Your task to perform on an android device: turn off location Image 0: 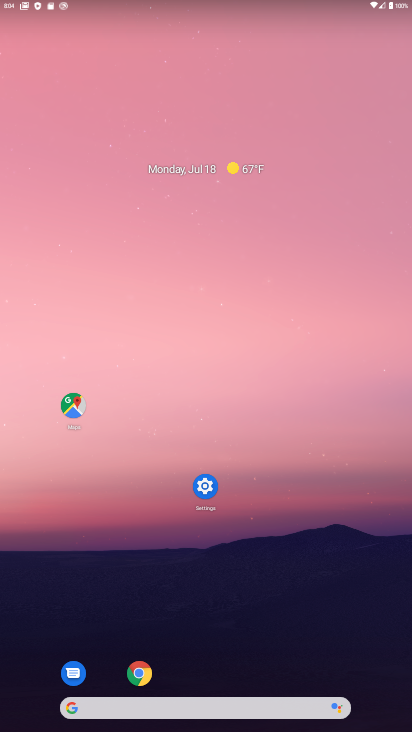
Step 0: drag from (284, 696) to (260, 333)
Your task to perform on an android device: turn off location Image 1: 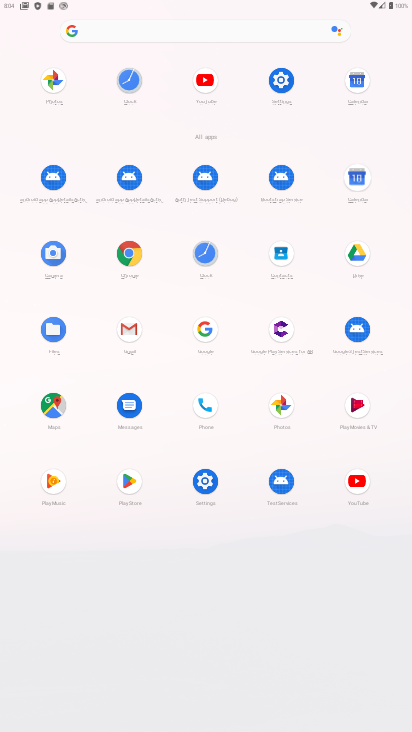
Step 1: click (209, 480)
Your task to perform on an android device: turn off location Image 2: 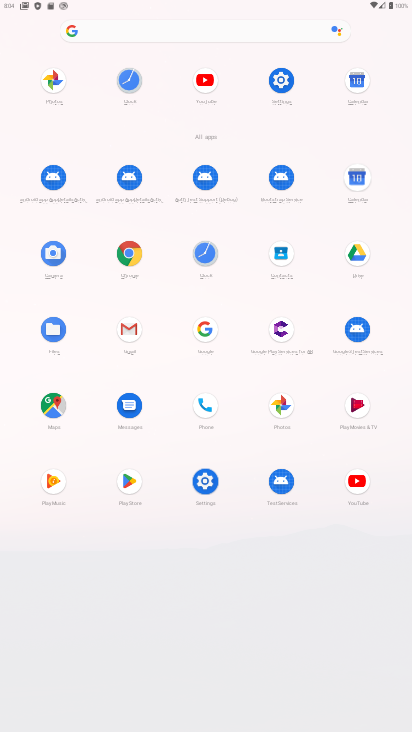
Step 2: click (212, 480)
Your task to perform on an android device: turn off location Image 3: 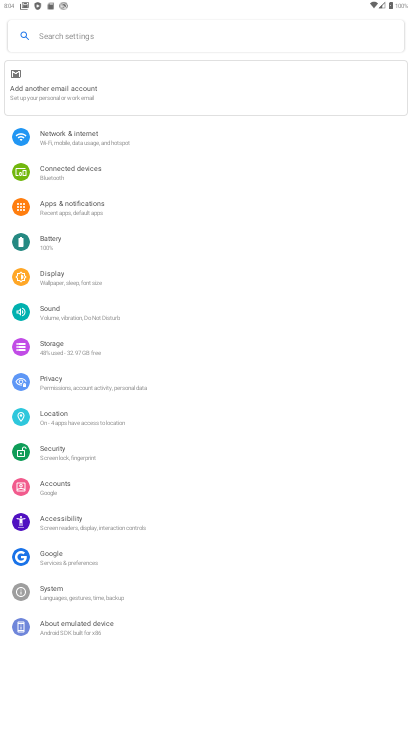
Step 3: click (66, 423)
Your task to perform on an android device: turn off location Image 4: 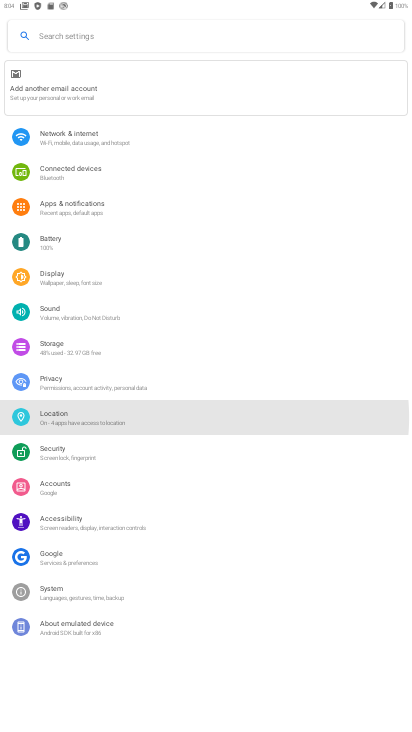
Step 4: click (66, 423)
Your task to perform on an android device: turn off location Image 5: 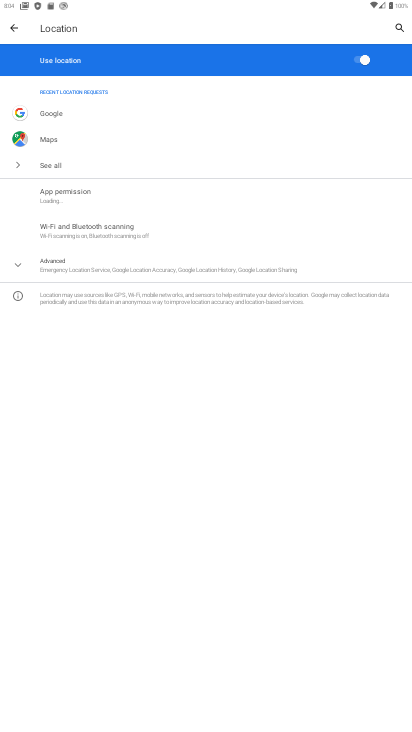
Step 5: click (51, 262)
Your task to perform on an android device: turn off location Image 6: 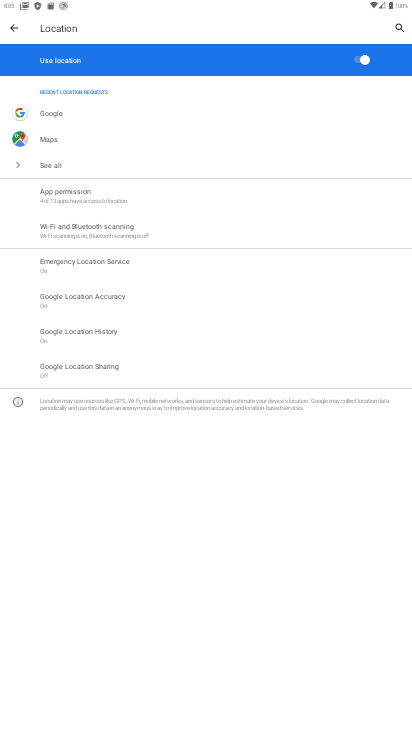
Step 6: click (365, 58)
Your task to perform on an android device: turn off location Image 7: 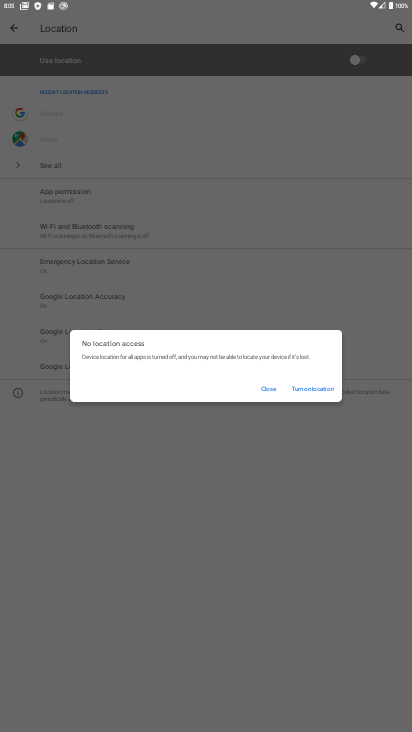
Step 7: task complete